Your task to perform on an android device: add a contact in the contacts app Image 0: 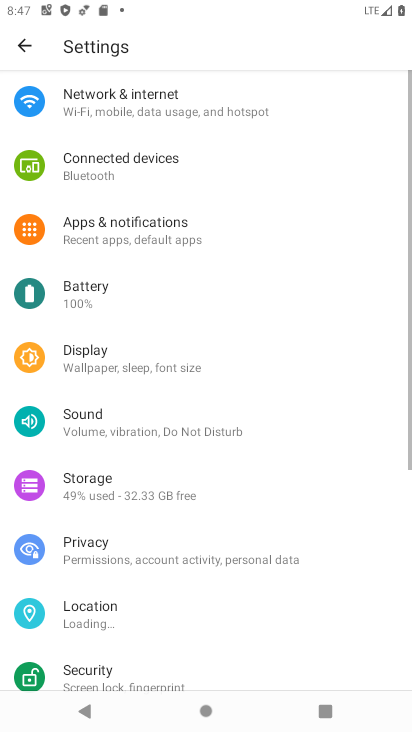
Step 0: press home button
Your task to perform on an android device: add a contact in the contacts app Image 1: 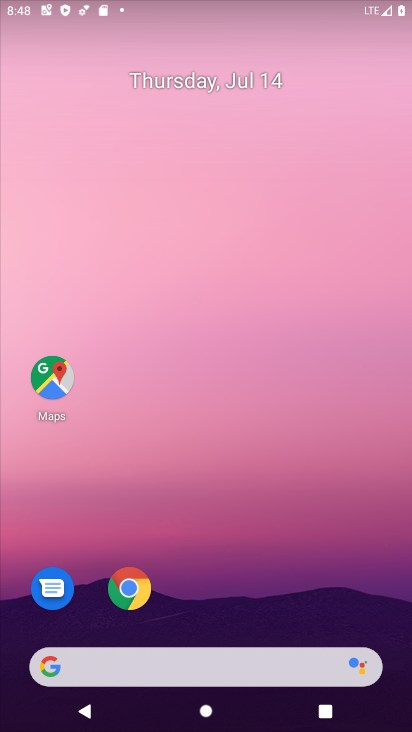
Step 1: drag from (407, 582) to (293, 0)
Your task to perform on an android device: add a contact in the contacts app Image 2: 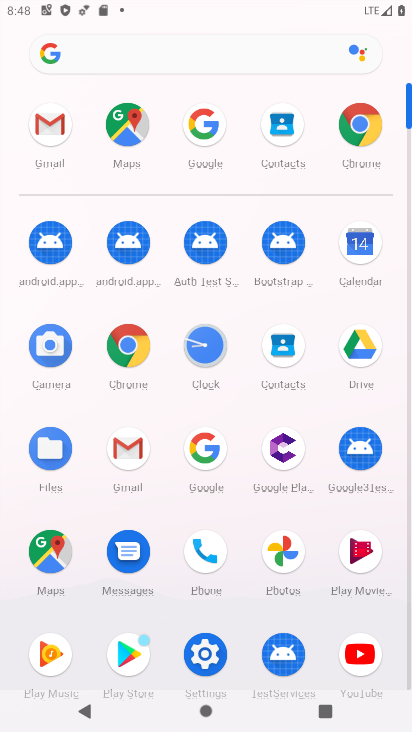
Step 2: click (276, 354)
Your task to perform on an android device: add a contact in the contacts app Image 3: 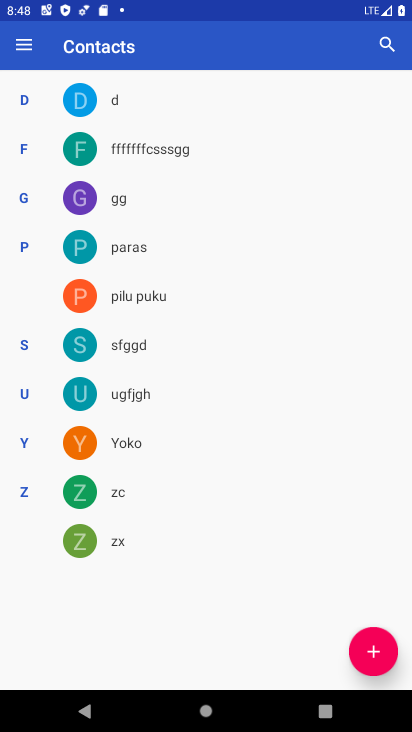
Step 3: click (369, 651)
Your task to perform on an android device: add a contact in the contacts app Image 4: 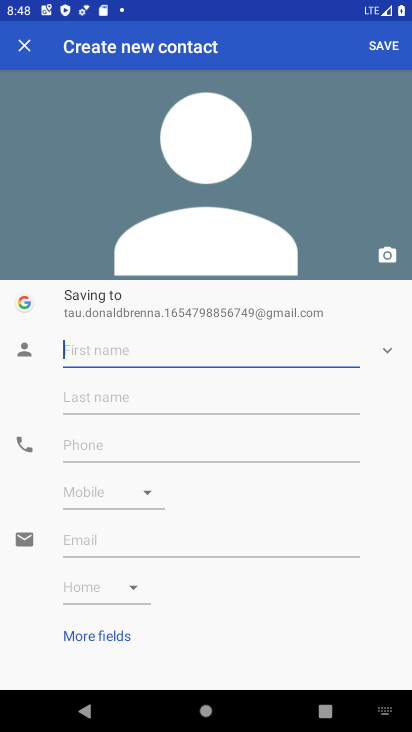
Step 4: type "sunil"
Your task to perform on an android device: add a contact in the contacts app Image 5: 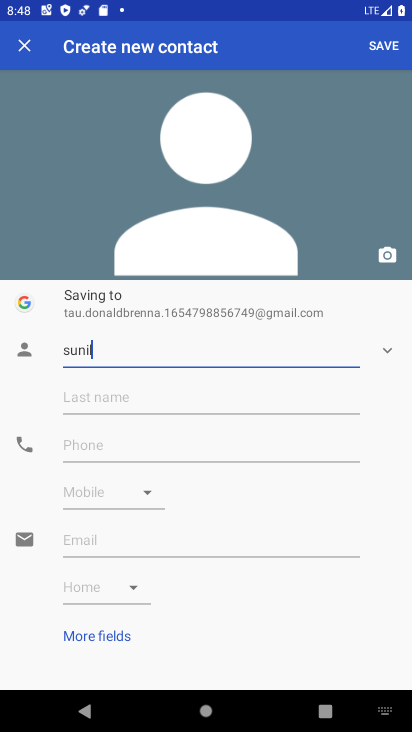
Step 5: click (379, 44)
Your task to perform on an android device: add a contact in the contacts app Image 6: 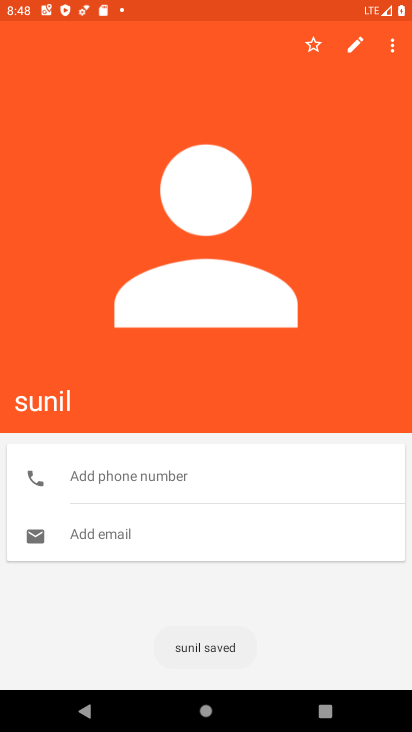
Step 6: task complete